Your task to perform on an android device: Open Amazon Image 0: 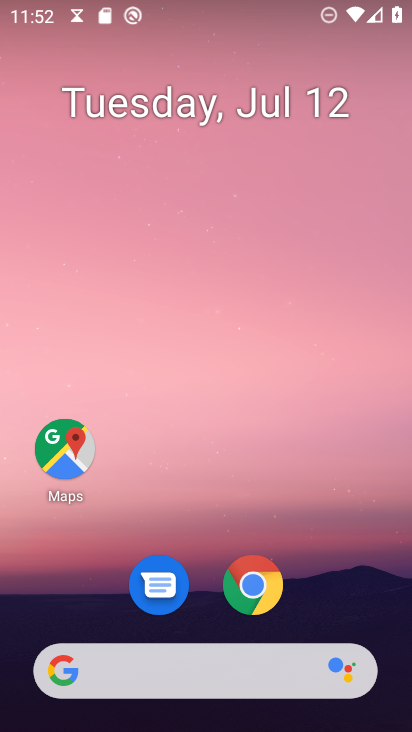
Step 0: click (250, 582)
Your task to perform on an android device: Open Amazon Image 1: 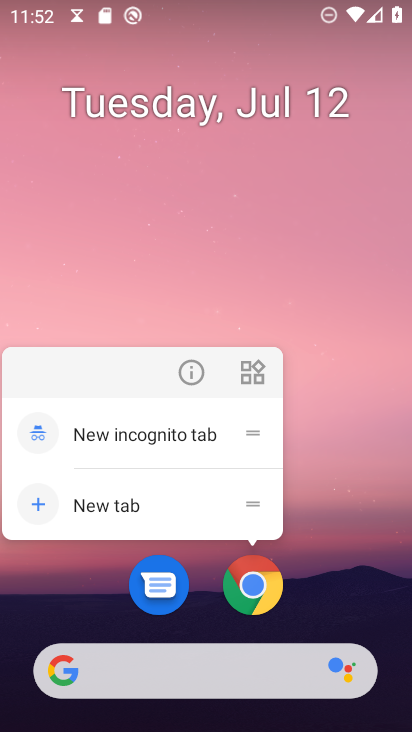
Step 1: click (246, 593)
Your task to perform on an android device: Open Amazon Image 2: 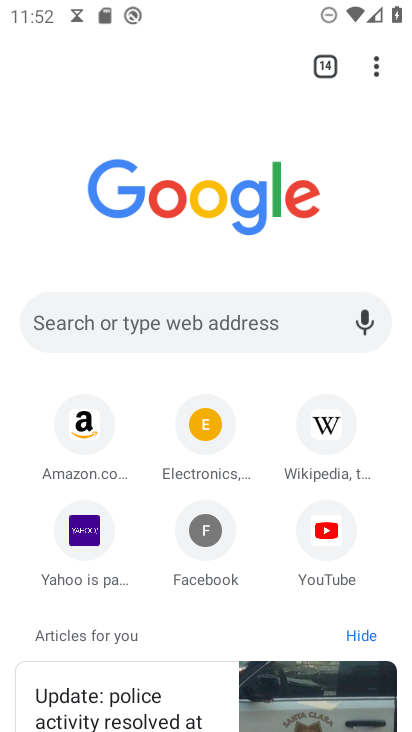
Step 2: click (75, 428)
Your task to perform on an android device: Open Amazon Image 3: 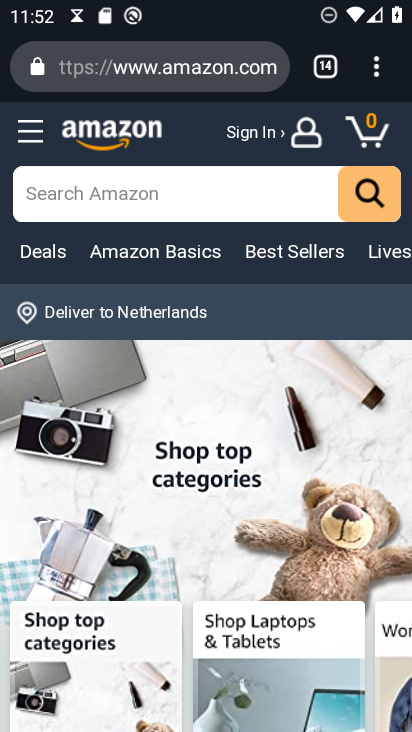
Step 3: task complete